Your task to perform on an android device: add a contact Image 0: 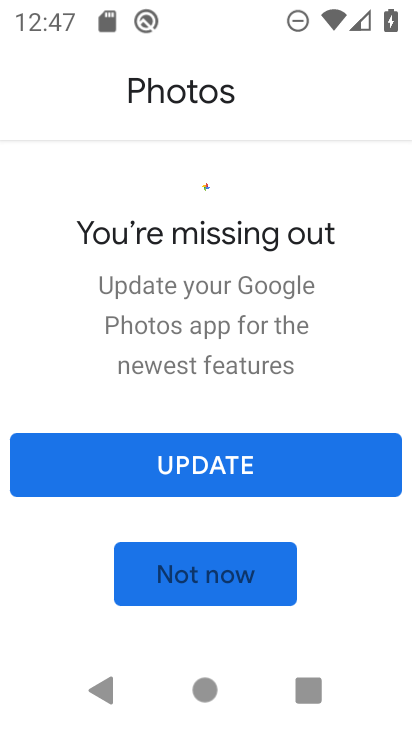
Step 0: press home button
Your task to perform on an android device: add a contact Image 1: 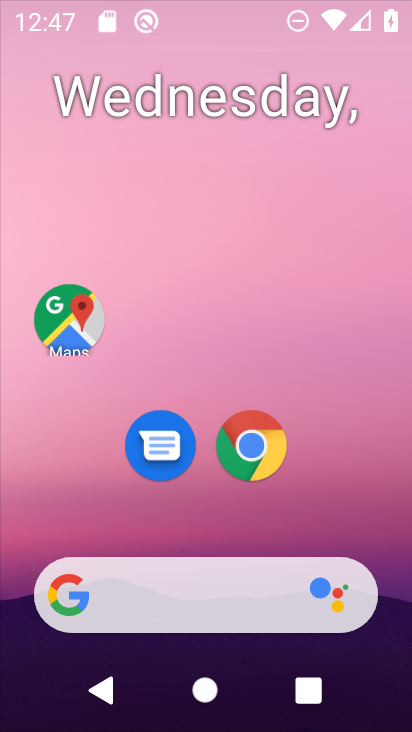
Step 1: drag from (403, 610) to (264, 20)
Your task to perform on an android device: add a contact Image 2: 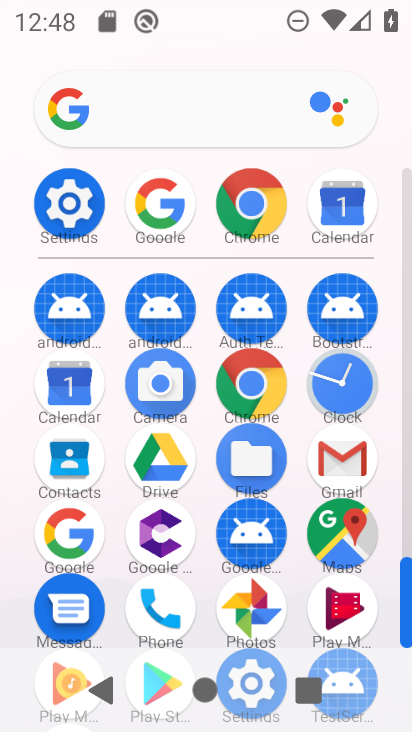
Step 2: click (75, 486)
Your task to perform on an android device: add a contact Image 3: 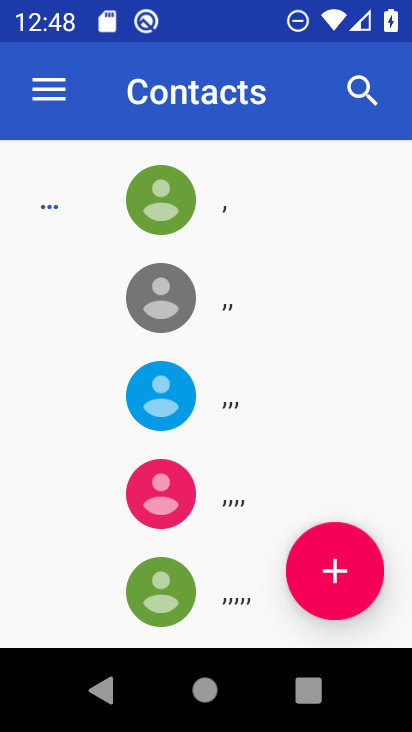
Step 3: click (334, 580)
Your task to perform on an android device: add a contact Image 4: 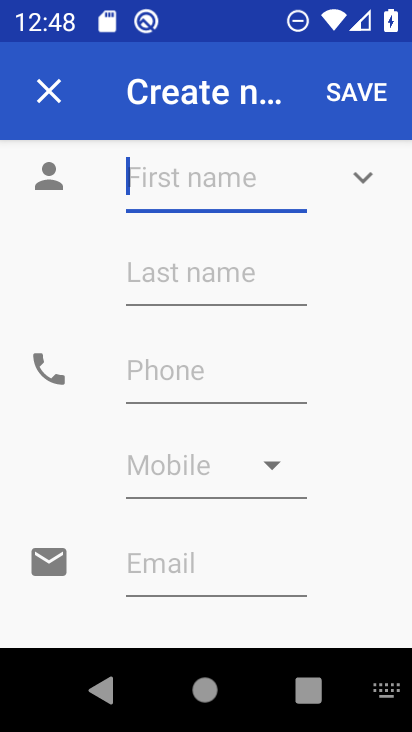
Step 4: type "sahil"
Your task to perform on an android device: add a contact Image 5: 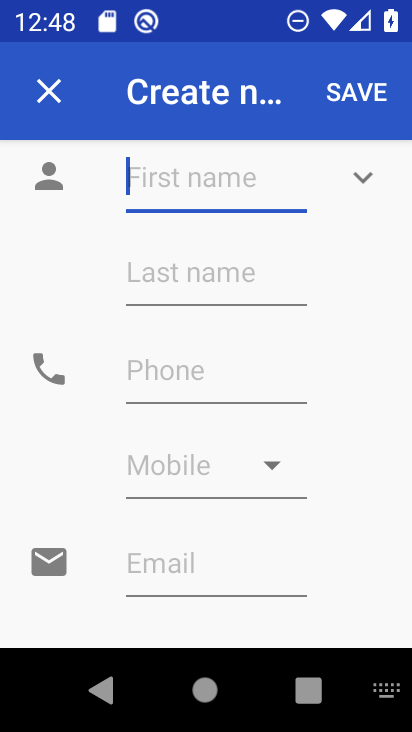
Step 5: click (368, 80)
Your task to perform on an android device: add a contact Image 6: 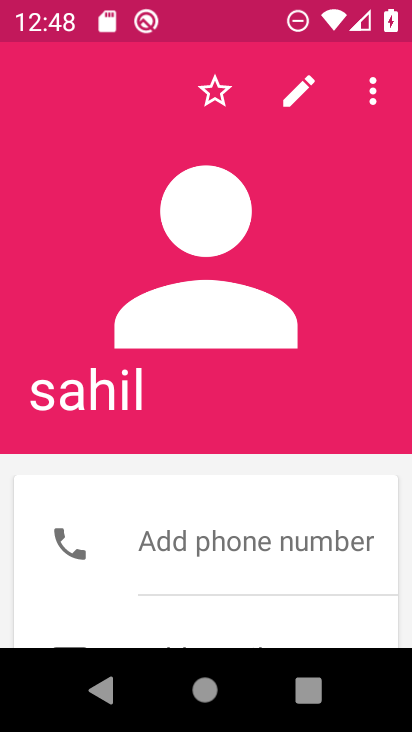
Step 6: task complete